Your task to perform on an android device: change the clock display to digital Image 0: 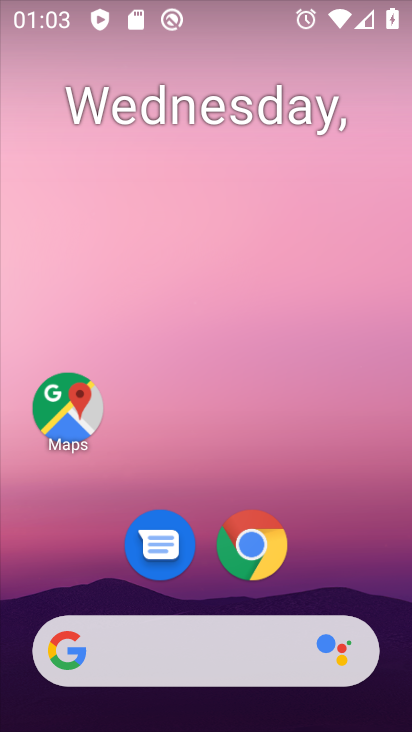
Step 0: drag from (331, 560) to (369, 144)
Your task to perform on an android device: change the clock display to digital Image 1: 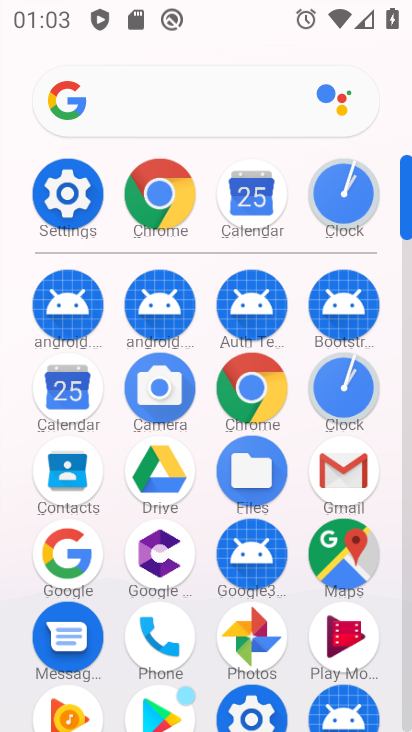
Step 1: click (336, 382)
Your task to perform on an android device: change the clock display to digital Image 2: 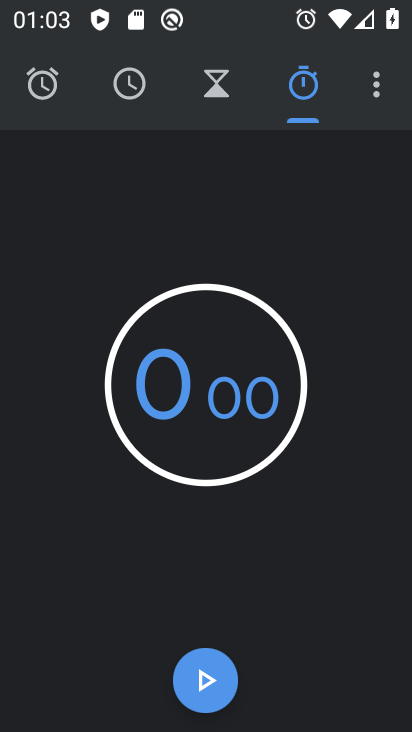
Step 2: click (376, 71)
Your task to perform on an android device: change the clock display to digital Image 3: 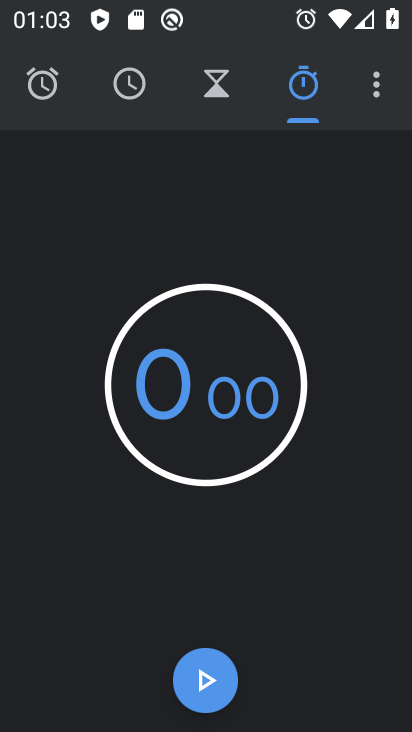
Step 3: click (370, 85)
Your task to perform on an android device: change the clock display to digital Image 4: 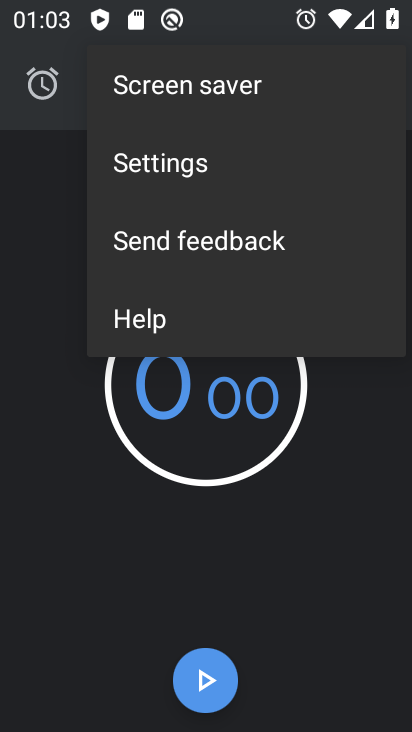
Step 4: click (180, 167)
Your task to perform on an android device: change the clock display to digital Image 5: 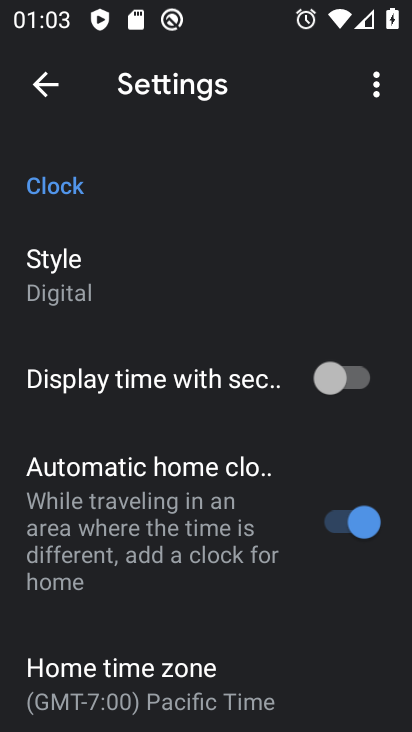
Step 5: task complete